Your task to perform on an android device: turn pop-ups off in chrome Image 0: 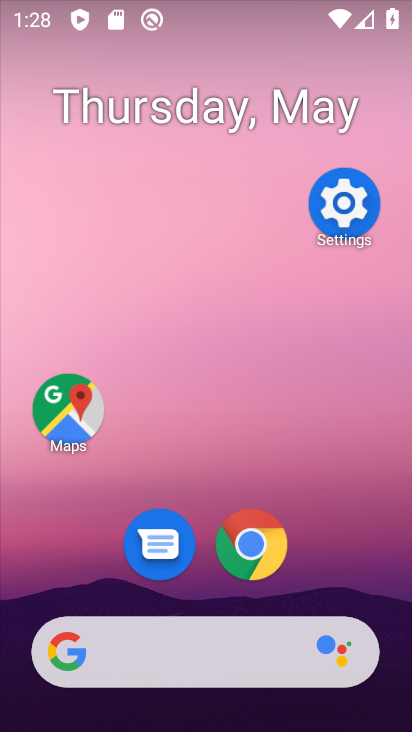
Step 0: click (230, 557)
Your task to perform on an android device: turn pop-ups off in chrome Image 1: 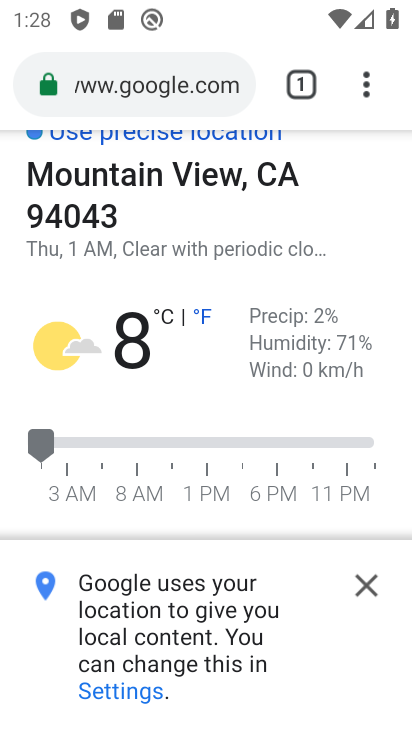
Step 1: drag from (368, 92) to (209, 591)
Your task to perform on an android device: turn pop-ups off in chrome Image 2: 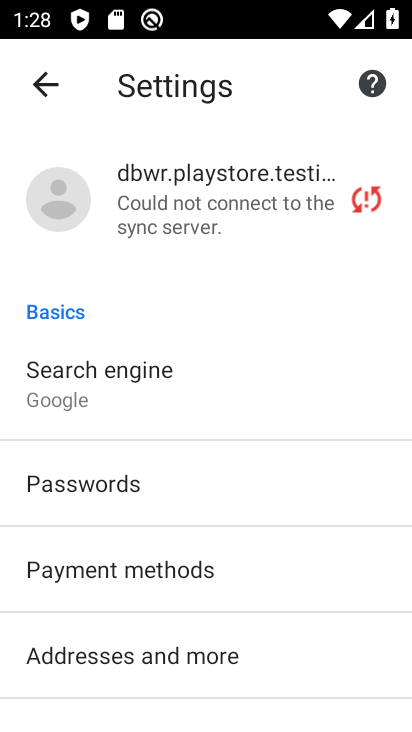
Step 2: drag from (208, 590) to (239, 311)
Your task to perform on an android device: turn pop-ups off in chrome Image 3: 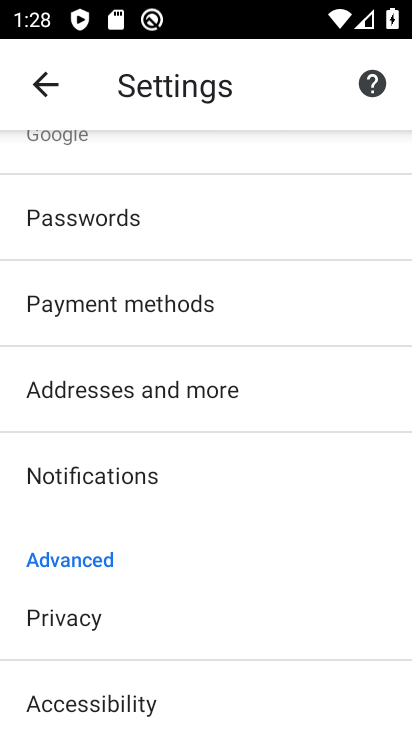
Step 3: drag from (213, 637) to (271, 328)
Your task to perform on an android device: turn pop-ups off in chrome Image 4: 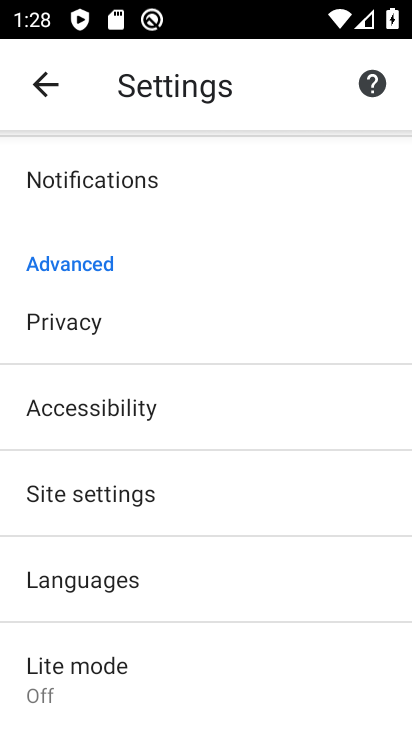
Step 4: click (135, 511)
Your task to perform on an android device: turn pop-ups off in chrome Image 5: 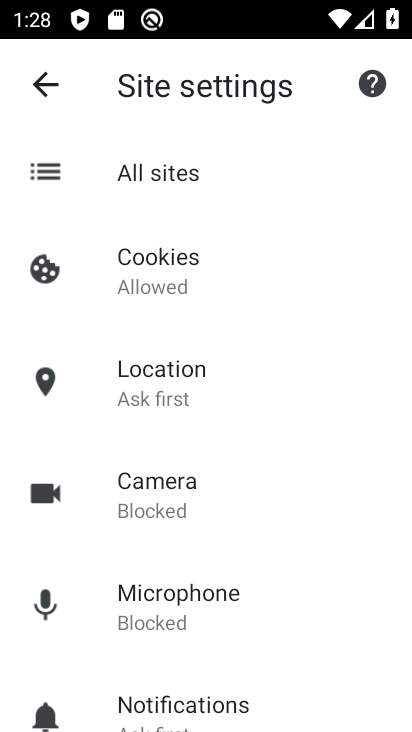
Step 5: drag from (270, 683) to (312, 244)
Your task to perform on an android device: turn pop-ups off in chrome Image 6: 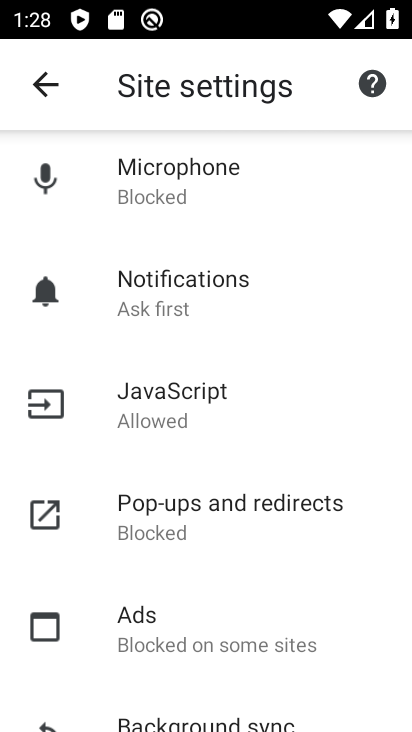
Step 6: click (272, 498)
Your task to perform on an android device: turn pop-ups off in chrome Image 7: 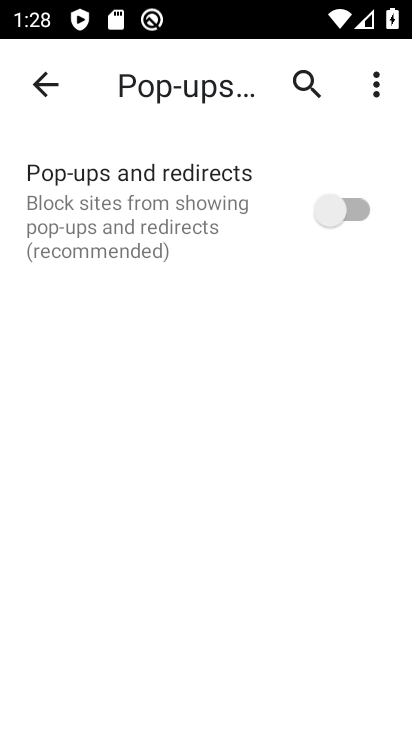
Step 7: task complete